Your task to perform on an android device: Open Android settings Image 0: 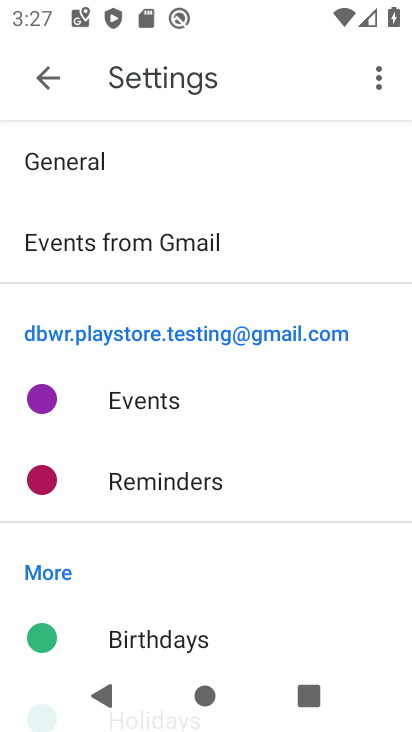
Step 0: press home button
Your task to perform on an android device: Open Android settings Image 1: 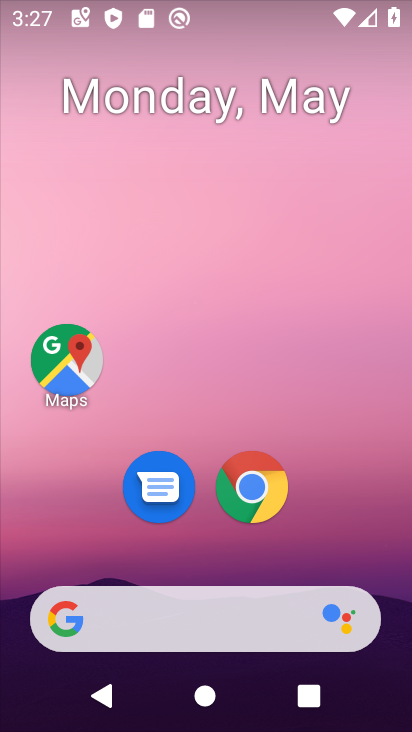
Step 1: drag from (217, 569) to (251, 246)
Your task to perform on an android device: Open Android settings Image 2: 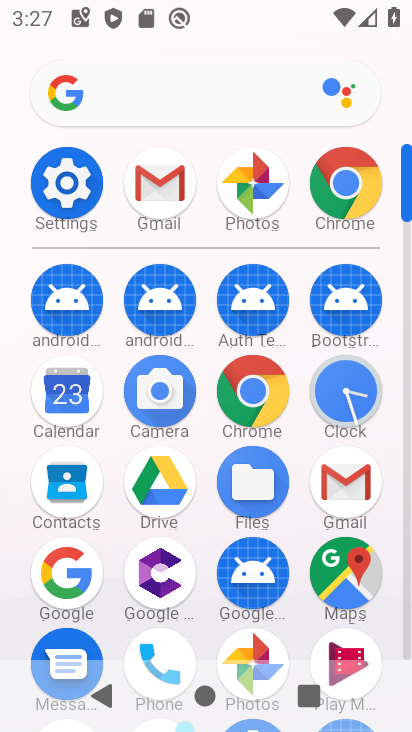
Step 2: click (80, 182)
Your task to perform on an android device: Open Android settings Image 3: 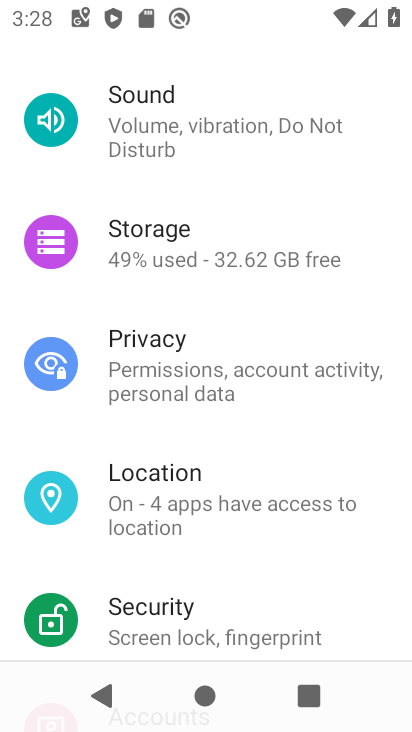
Step 3: task complete